Your task to perform on an android device: check storage Image 0: 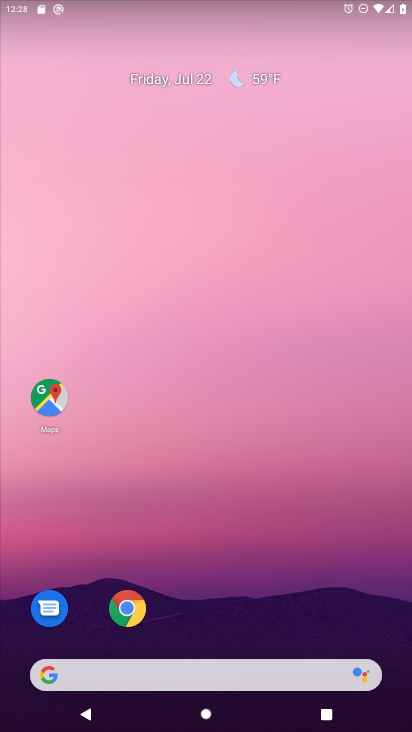
Step 0: drag from (345, 634) to (157, 27)
Your task to perform on an android device: check storage Image 1: 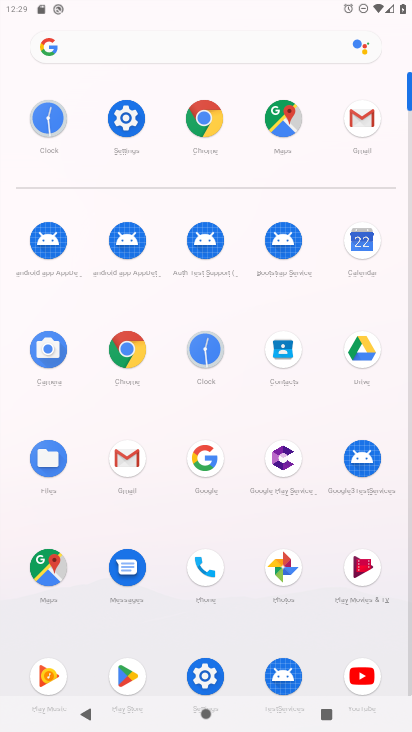
Step 1: click (211, 678)
Your task to perform on an android device: check storage Image 2: 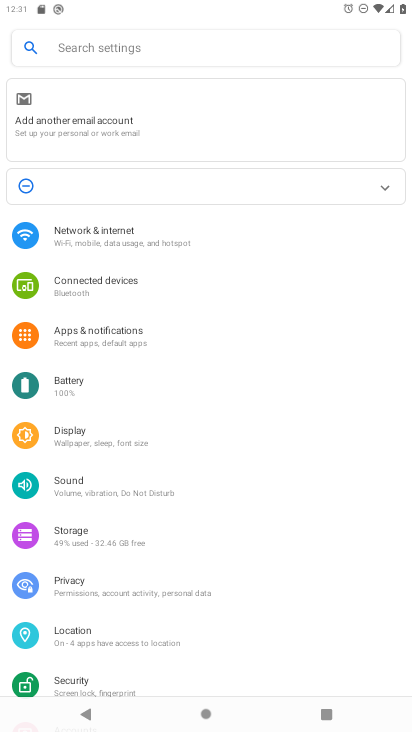
Step 2: click (81, 541)
Your task to perform on an android device: check storage Image 3: 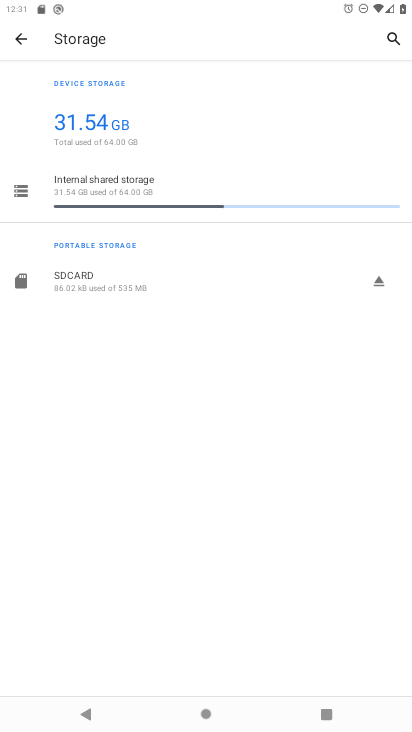
Step 3: click (113, 189)
Your task to perform on an android device: check storage Image 4: 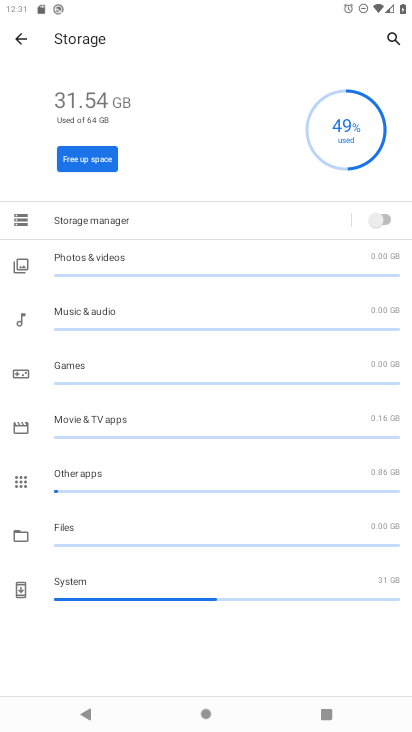
Step 4: task complete